Your task to perform on an android device: set the timer Image 0: 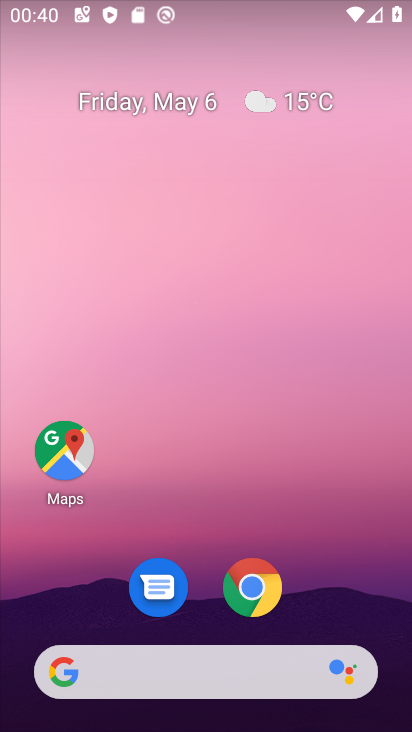
Step 0: drag from (384, 509) to (357, 217)
Your task to perform on an android device: set the timer Image 1: 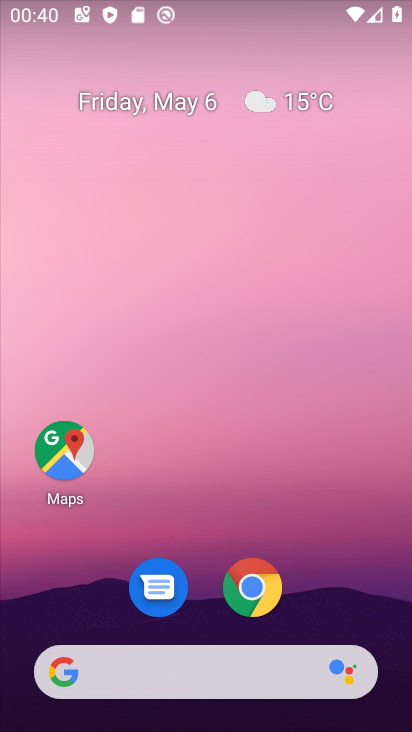
Step 1: click (337, 141)
Your task to perform on an android device: set the timer Image 2: 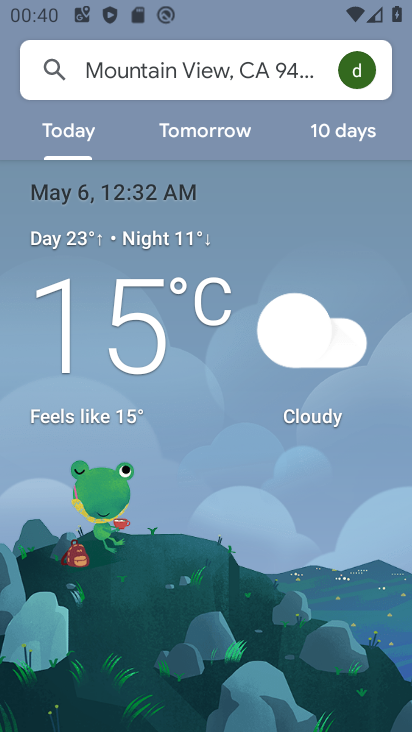
Step 2: press home button
Your task to perform on an android device: set the timer Image 3: 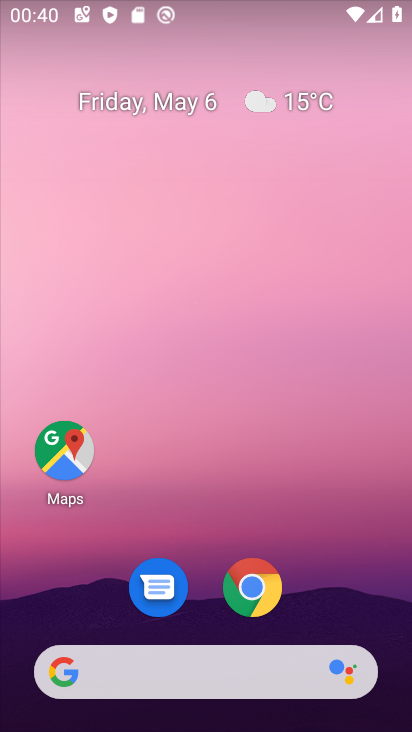
Step 3: drag from (359, 563) to (333, 171)
Your task to perform on an android device: set the timer Image 4: 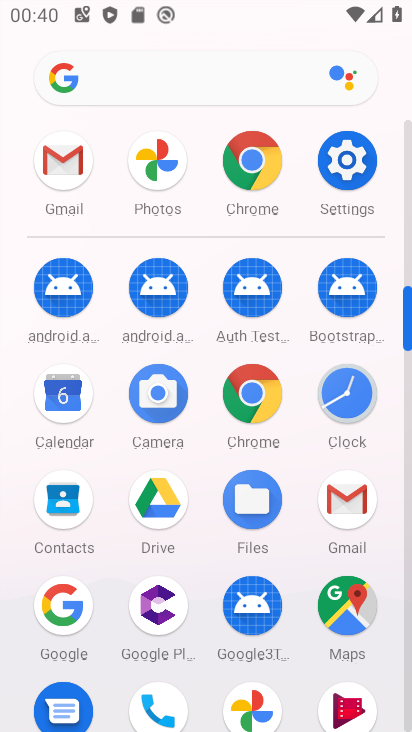
Step 4: click (351, 167)
Your task to perform on an android device: set the timer Image 5: 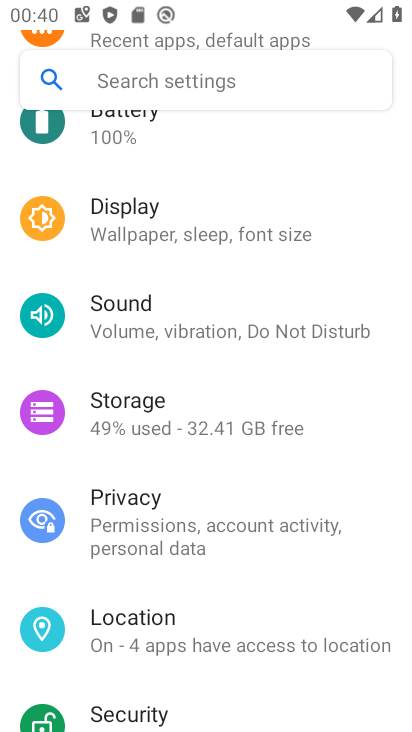
Step 5: press home button
Your task to perform on an android device: set the timer Image 6: 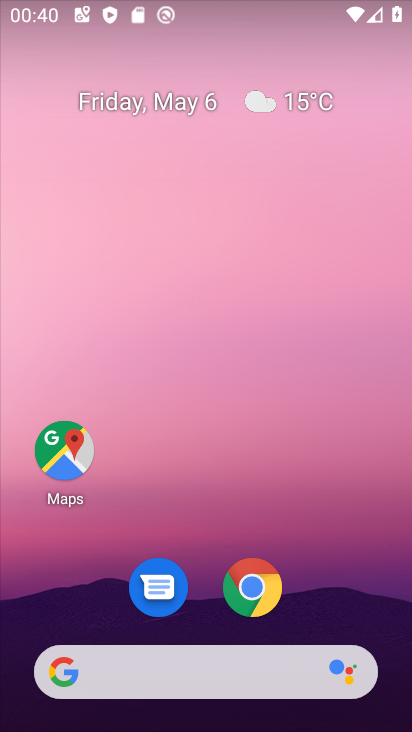
Step 6: drag from (376, 610) to (325, 119)
Your task to perform on an android device: set the timer Image 7: 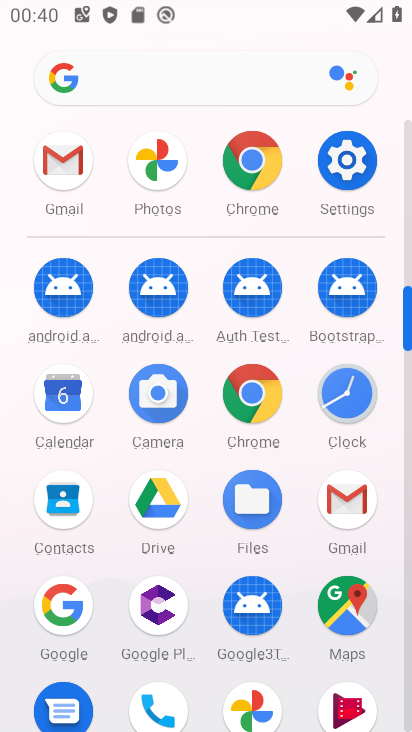
Step 7: click (342, 401)
Your task to perform on an android device: set the timer Image 8: 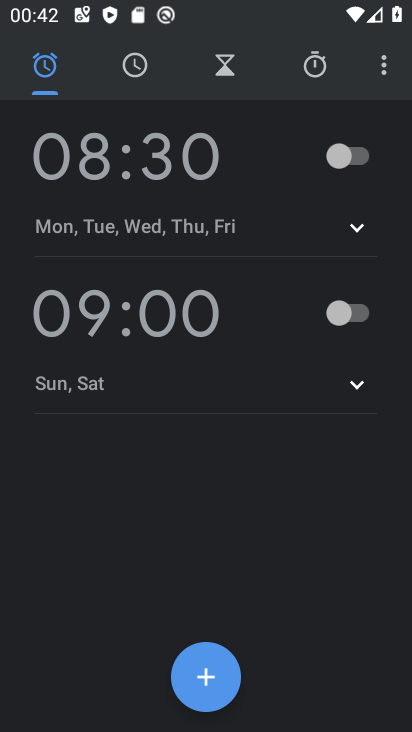
Step 8: click (313, 73)
Your task to perform on an android device: set the timer Image 9: 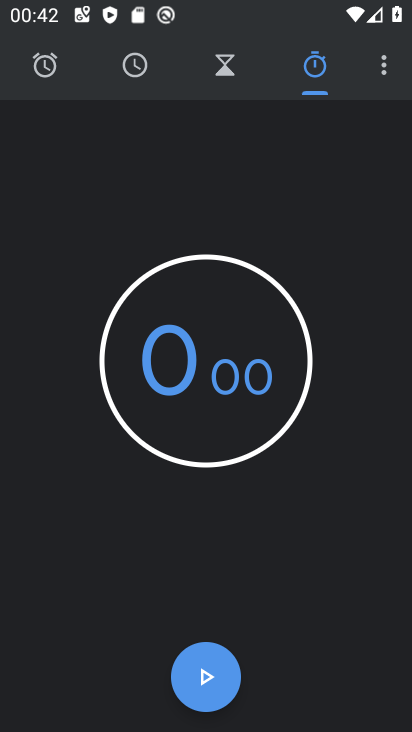
Step 9: click (210, 667)
Your task to perform on an android device: set the timer Image 10: 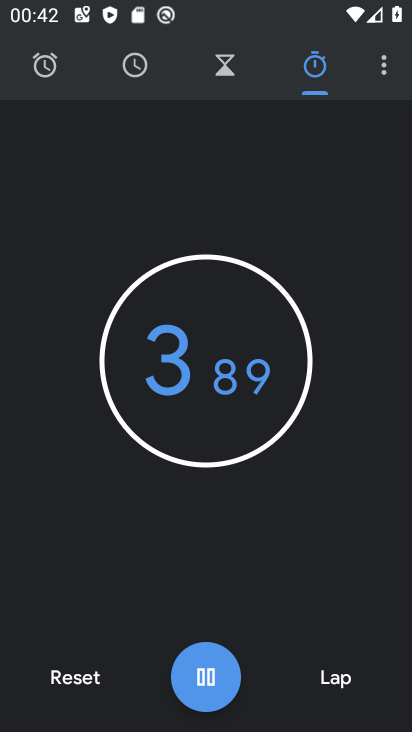
Step 10: click (382, 367)
Your task to perform on an android device: set the timer Image 11: 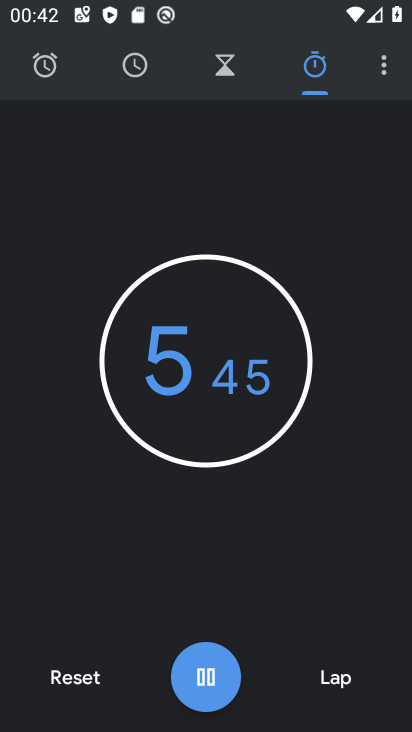
Step 11: task complete